Your task to perform on an android device: Open Google Chrome and click the shortcut for Amazon.com Image 0: 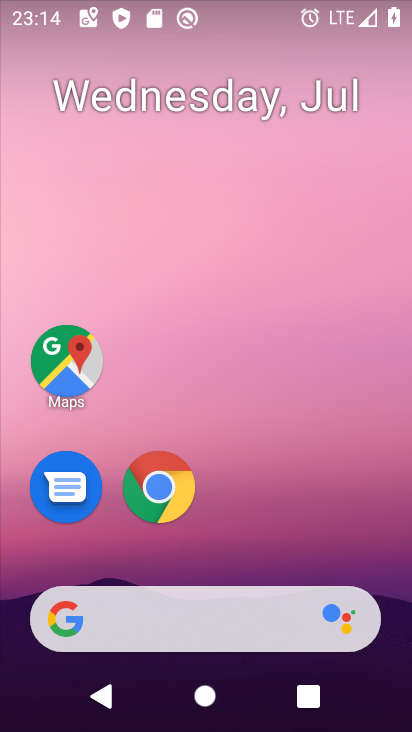
Step 0: click (164, 483)
Your task to perform on an android device: Open Google Chrome and click the shortcut for Amazon.com Image 1: 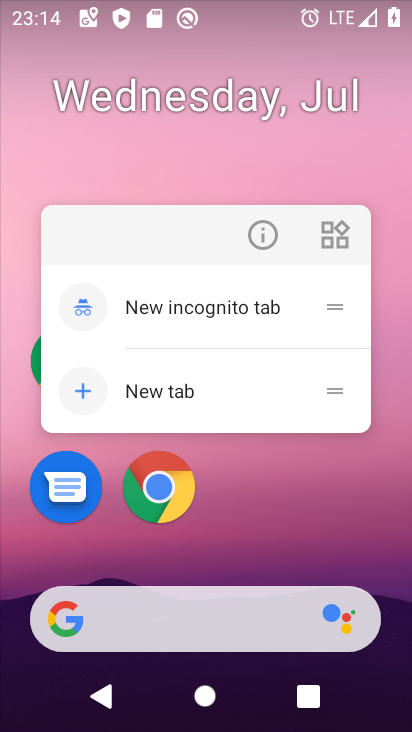
Step 1: click (159, 511)
Your task to perform on an android device: Open Google Chrome and click the shortcut for Amazon.com Image 2: 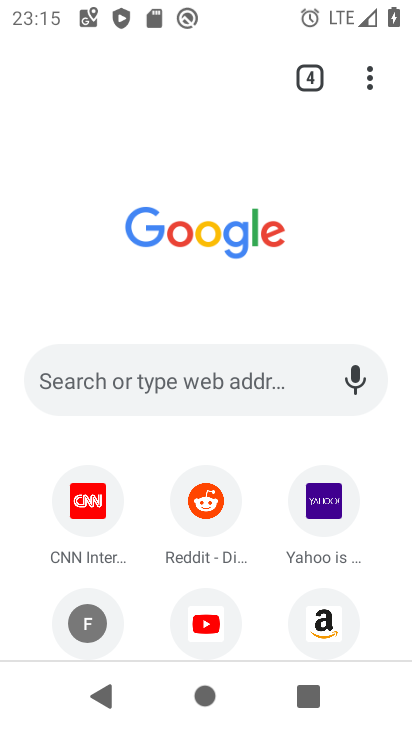
Step 2: click (334, 631)
Your task to perform on an android device: Open Google Chrome and click the shortcut for Amazon.com Image 3: 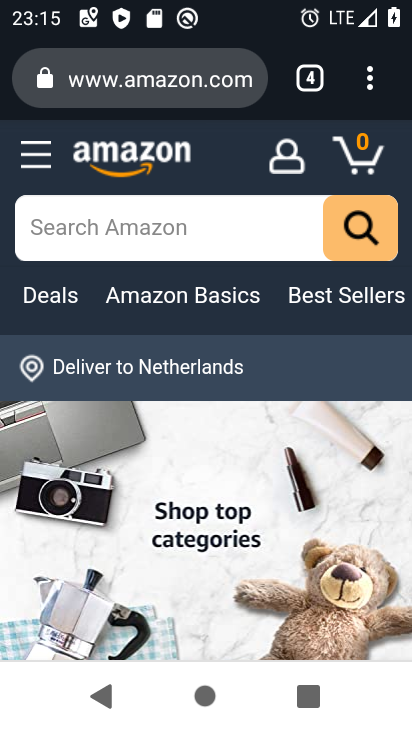
Step 3: task complete